Your task to perform on an android device: change notifications settings Image 0: 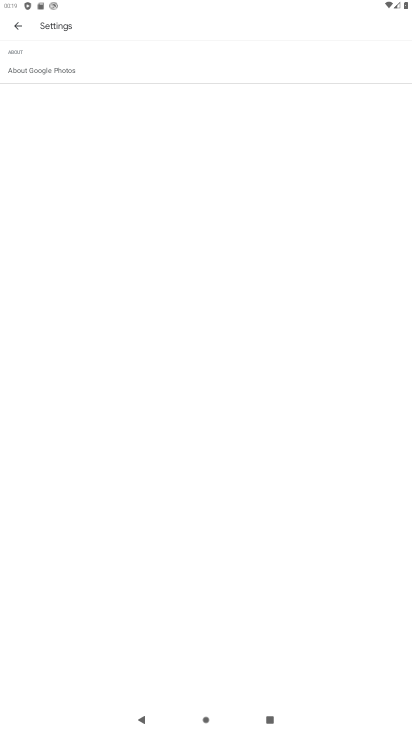
Step 0: press home button
Your task to perform on an android device: change notifications settings Image 1: 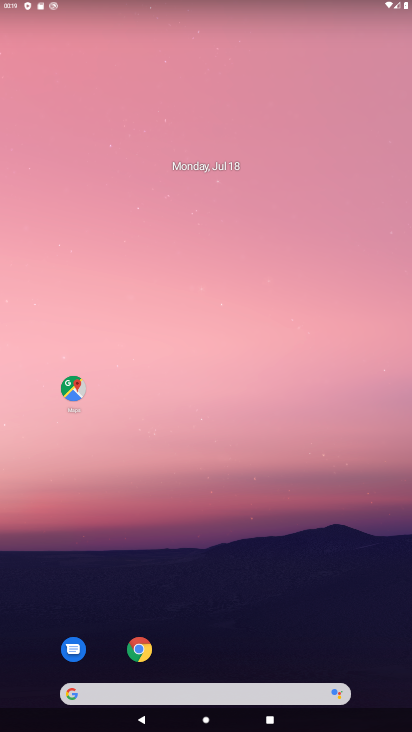
Step 1: drag from (153, 651) to (199, 60)
Your task to perform on an android device: change notifications settings Image 2: 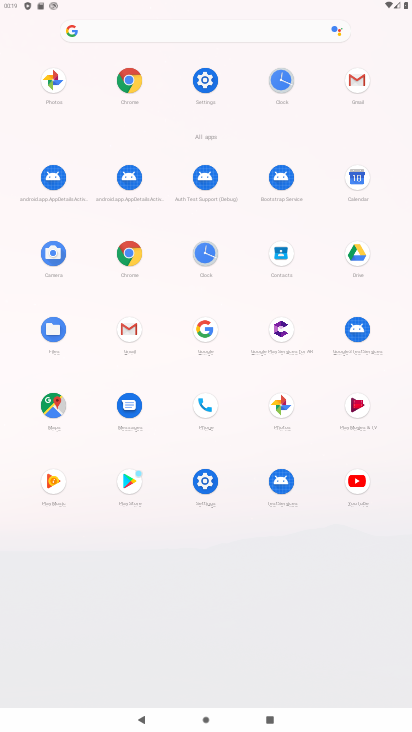
Step 2: click (205, 80)
Your task to perform on an android device: change notifications settings Image 3: 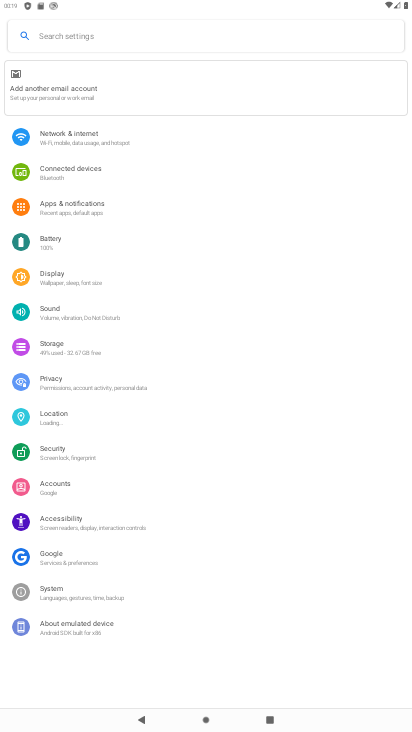
Step 3: click (76, 212)
Your task to perform on an android device: change notifications settings Image 4: 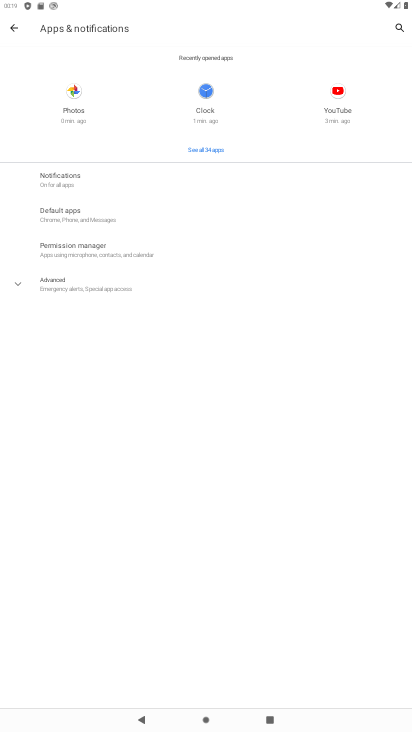
Step 4: task complete